Your task to perform on an android device: Go to Wikipedia Image 0: 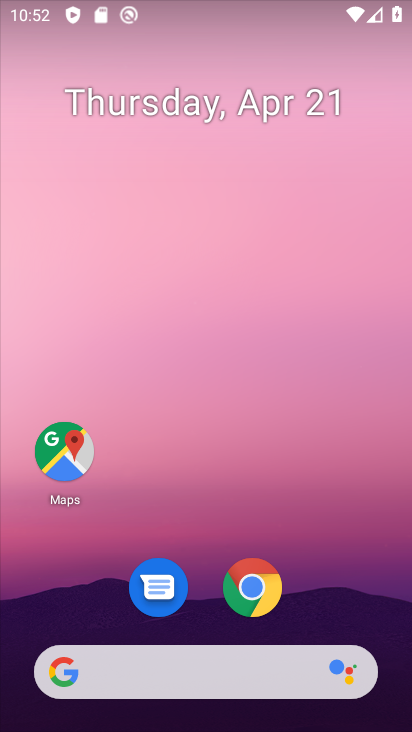
Step 0: click (257, 587)
Your task to perform on an android device: Go to Wikipedia Image 1: 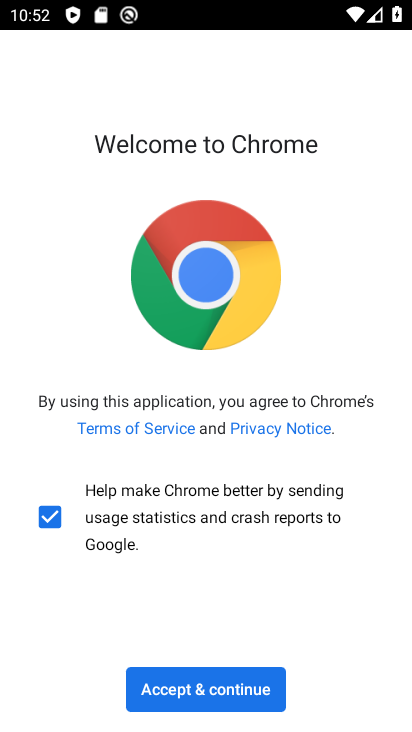
Step 1: click (184, 689)
Your task to perform on an android device: Go to Wikipedia Image 2: 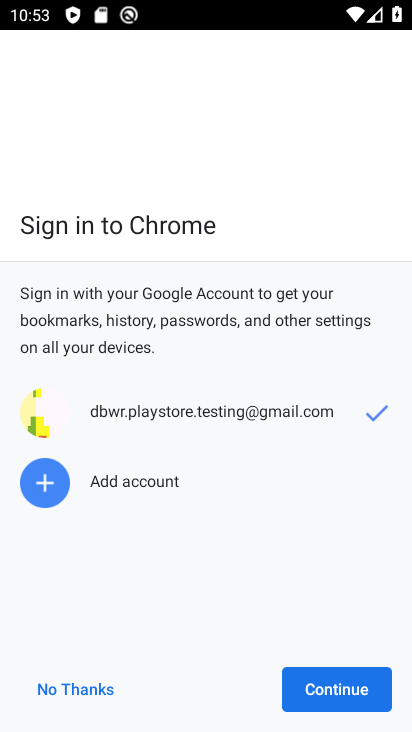
Step 2: click (376, 689)
Your task to perform on an android device: Go to Wikipedia Image 3: 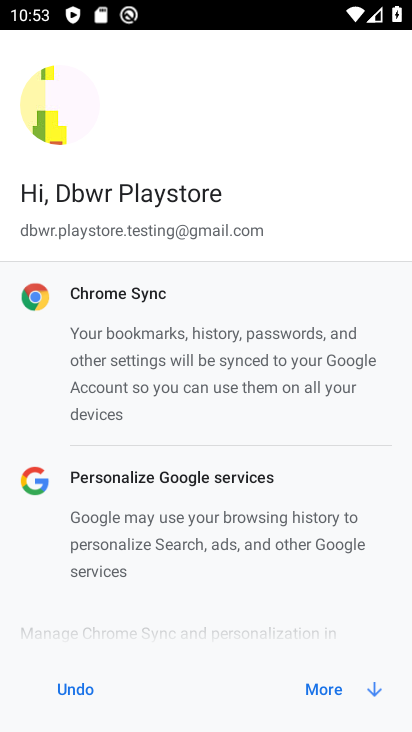
Step 3: click (345, 689)
Your task to perform on an android device: Go to Wikipedia Image 4: 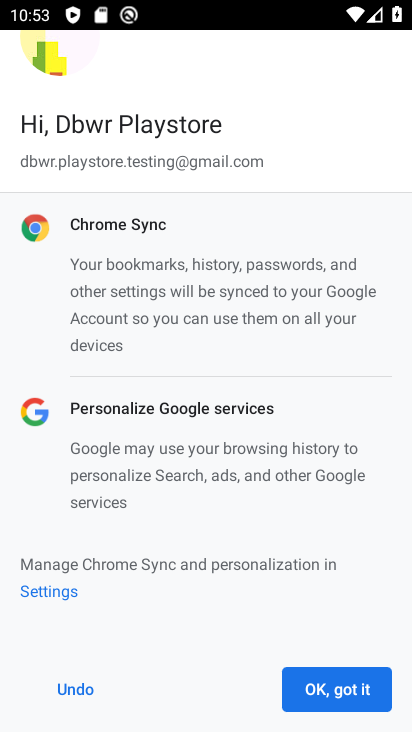
Step 4: click (345, 689)
Your task to perform on an android device: Go to Wikipedia Image 5: 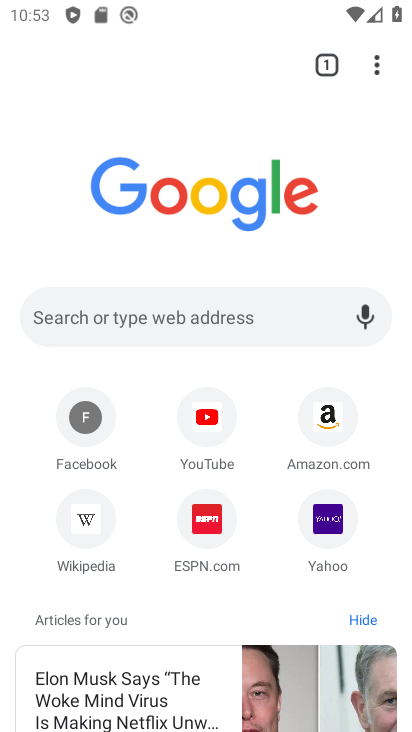
Step 5: click (87, 521)
Your task to perform on an android device: Go to Wikipedia Image 6: 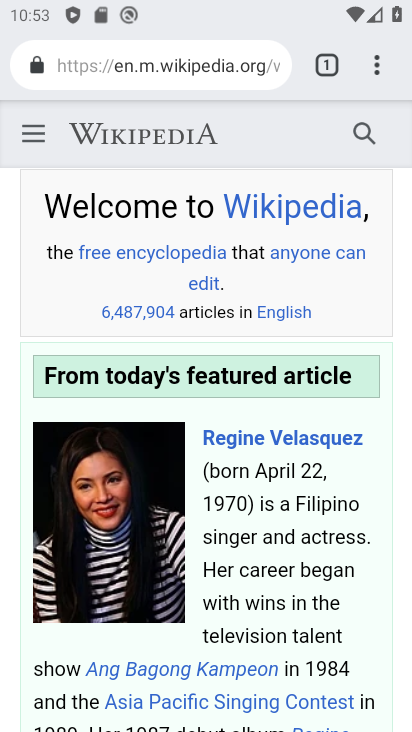
Step 6: task complete